Your task to perform on an android device: Go to Wikipedia Image 0: 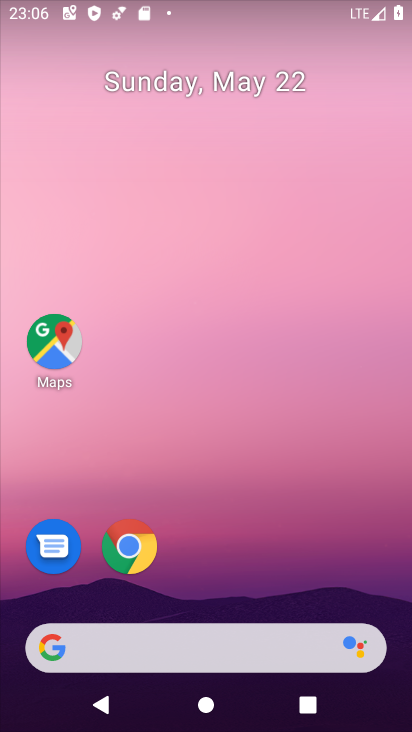
Step 0: drag from (207, 564) to (254, 119)
Your task to perform on an android device: Go to Wikipedia Image 1: 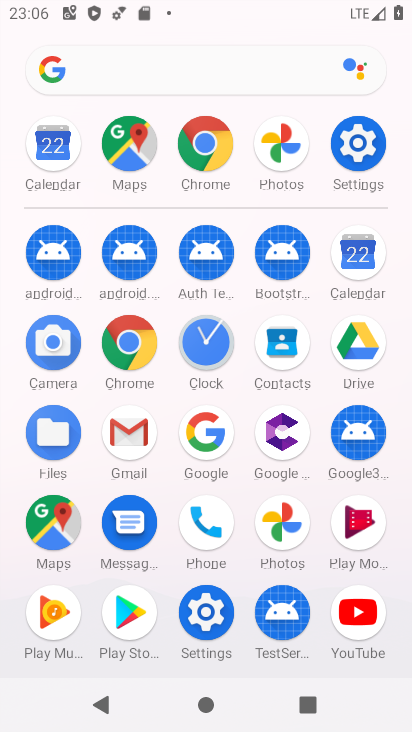
Step 1: click (160, 68)
Your task to perform on an android device: Go to Wikipedia Image 2: 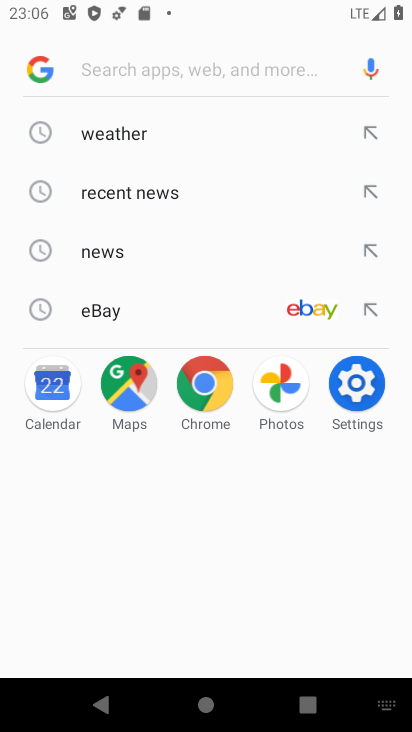
Step 2: type "wikipedia"
Your task to perform on an android device: Go to Wikipedia Image 3: 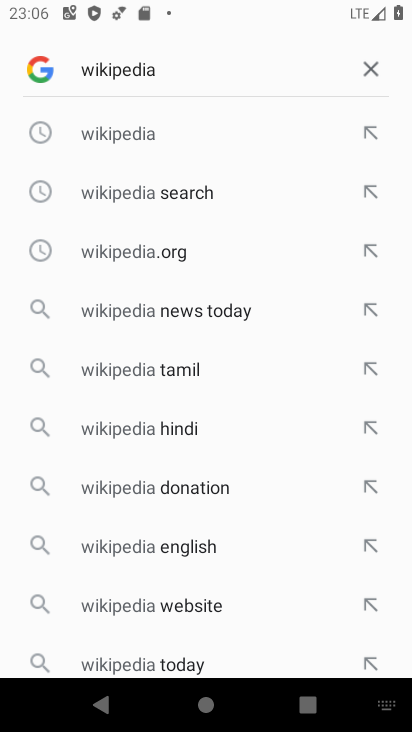
Step 3: click (213, 122)
Your task to perform on an android device: Go to Wikipedia Image 4: 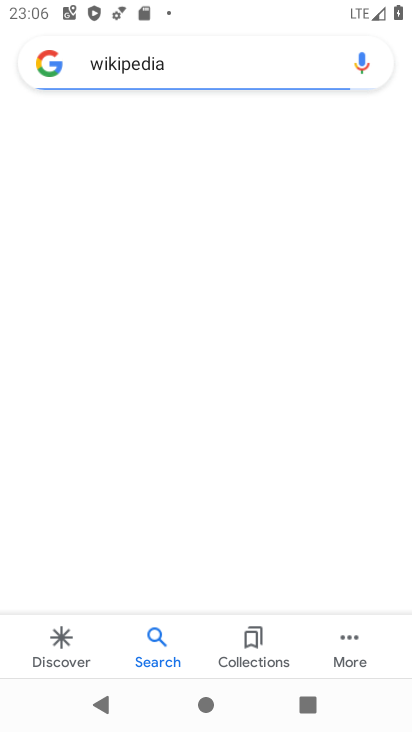
Step 4: drag from (207, 583) to (319, 104)
Your task to perform on an android device: Go to Wikipedia Image 5: 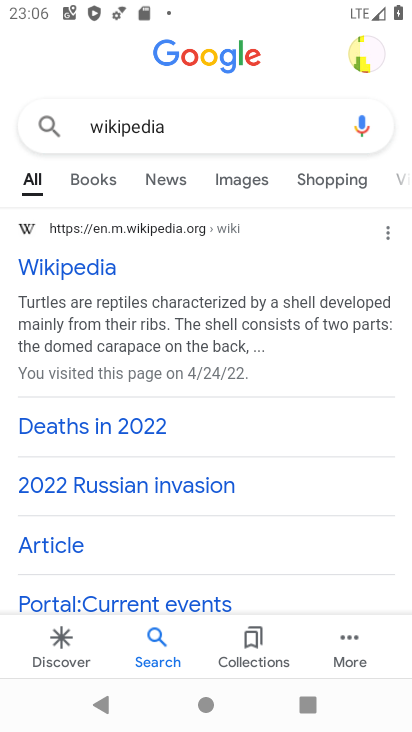
Step 5: drag from (269, 483) to (284, 730)
Your task to perform on an android device: Go to Wikipedia Image 6: 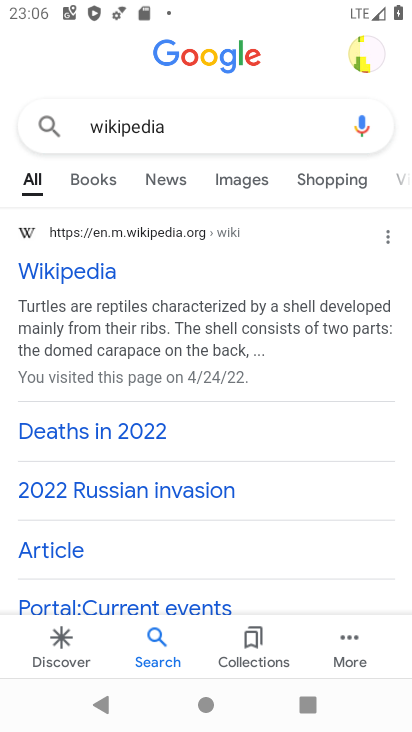
Step 6: click (92, 271)
Your task to perform on an android device: Go to Wikipedia Image 7: 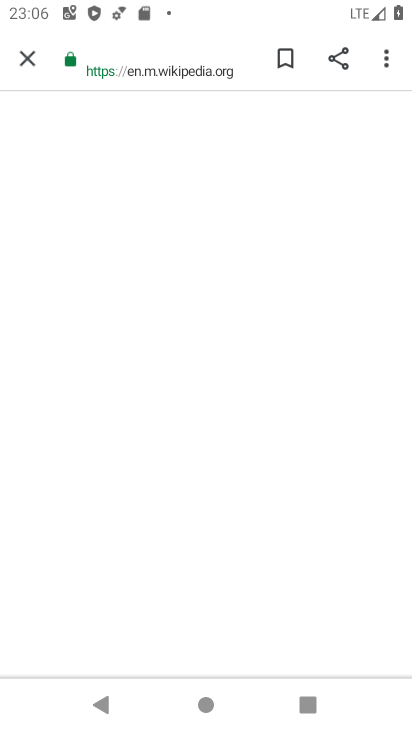
Step 7: task complete